Your task to perform on an android device: Go to privacy settings Image 0: 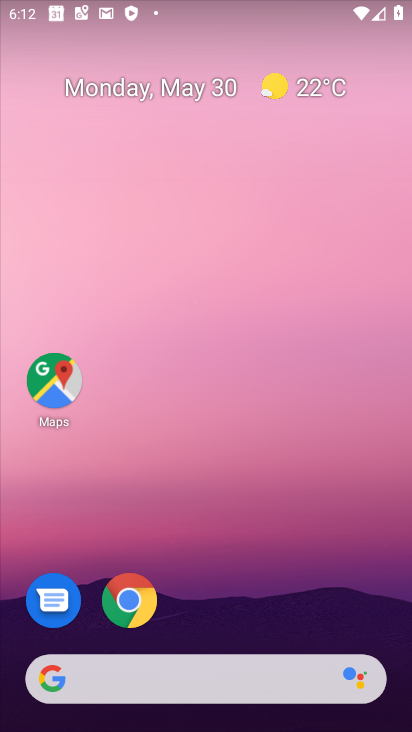
Step 0: press home button
Your task to perform on an android device: Go to privacy settings Image 1: 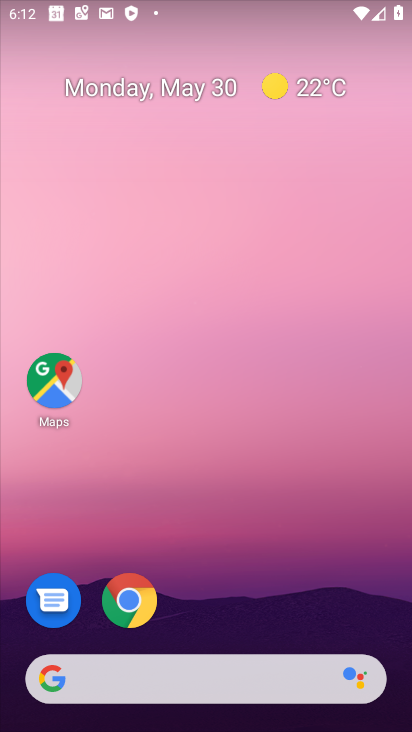
Step 1: drag from (257, 601) to (300, 55)
Your task to perform on an android device: Go to privacy settings Image 2: 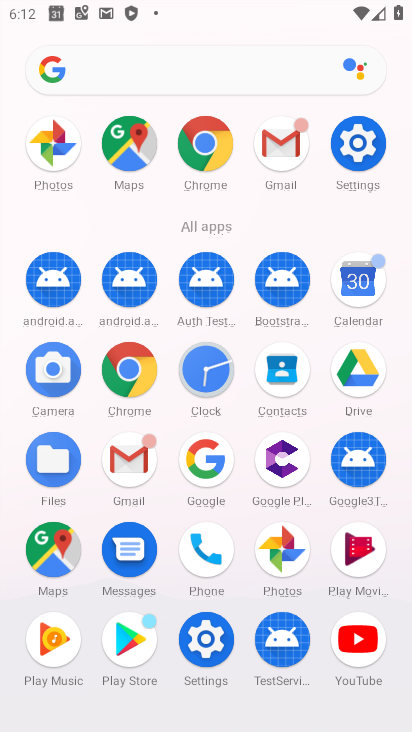
Step 2: click (368, 148)
Your task to perform on an android device: Go to privacy settings Image 3: 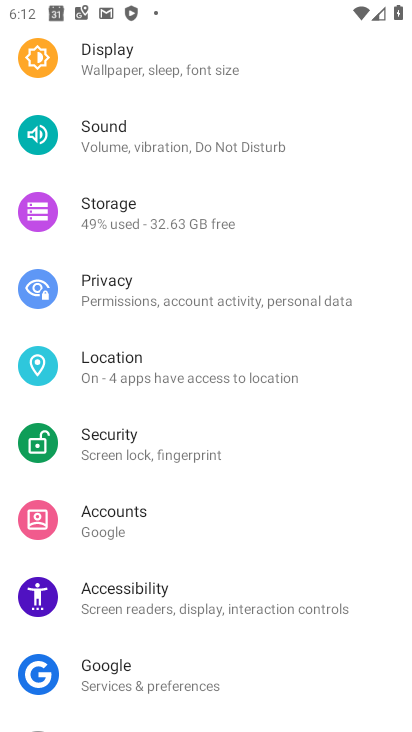
Step 3: click (115, 298)
Your task to perform on an android device: Go to privacy settings Image 4: 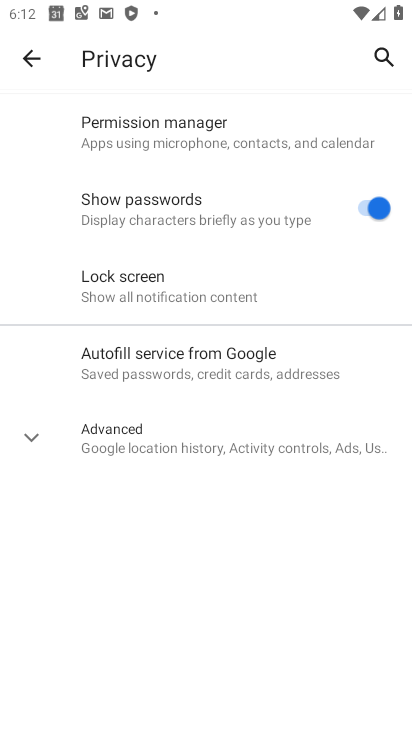
Step 4: task complete